Your task to perform on an android device: Open privacy settings Image 0: 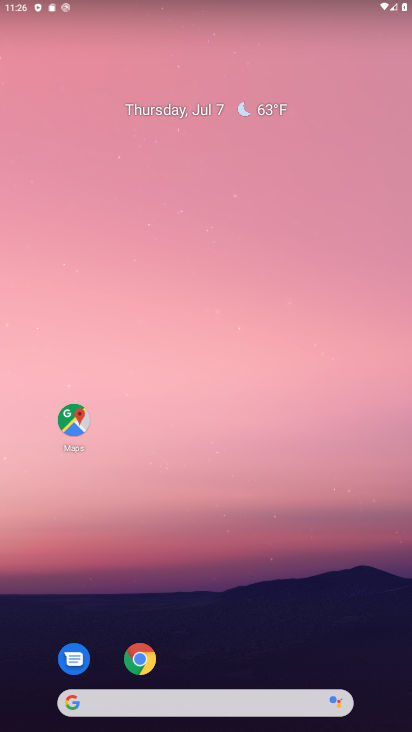
Step 0: drag from (188, 666) to (204, 0)
Your task to perform on an android device: Open privacy settings Image 1: 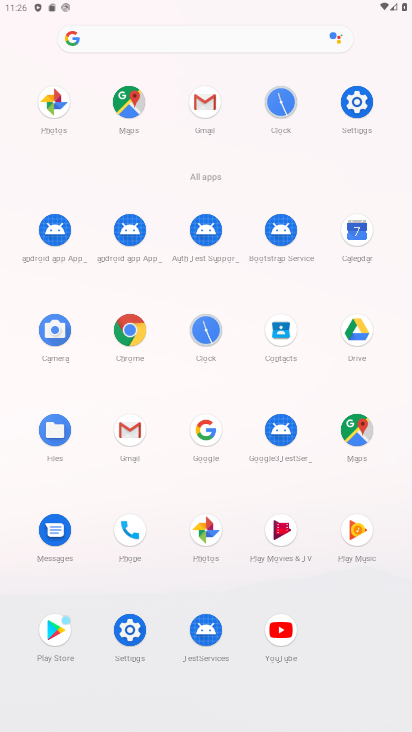
Step 1: click (131, 631)
Your task to perform on an android device: Open privacy settings Image 2: 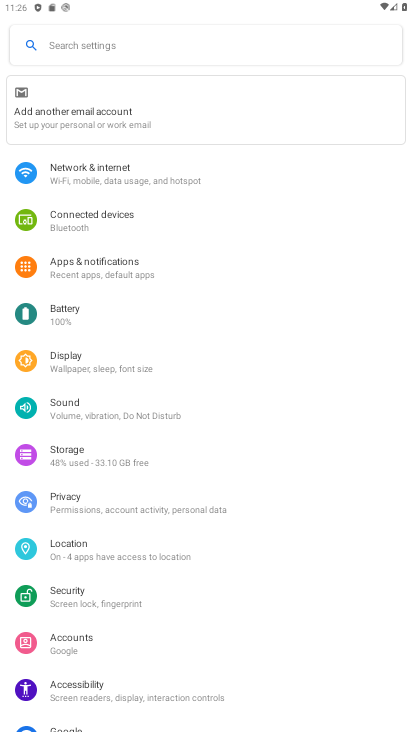
Step 2: click (86, 509)
Your task to perform on an android device: Open privacy settings Image 3: 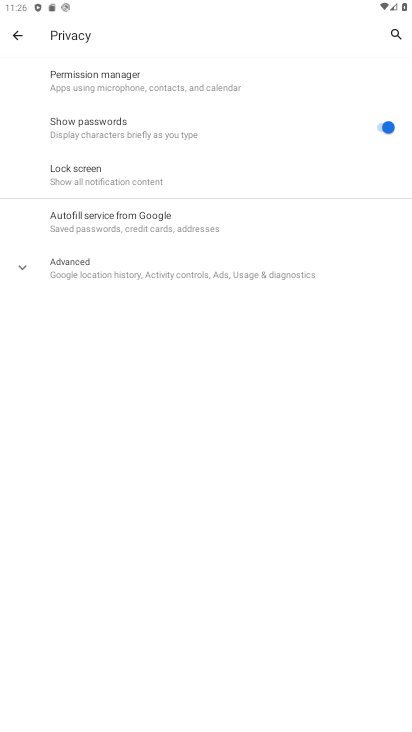
Step 3: task complete